Your task to perform on an android device: Go to Maps Image 0: 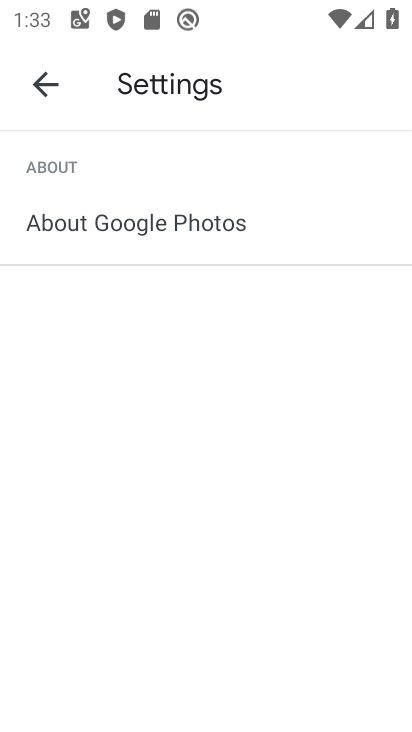
Step 0: press home button
Your task to perform on an android device: Go to Maps Image 1: 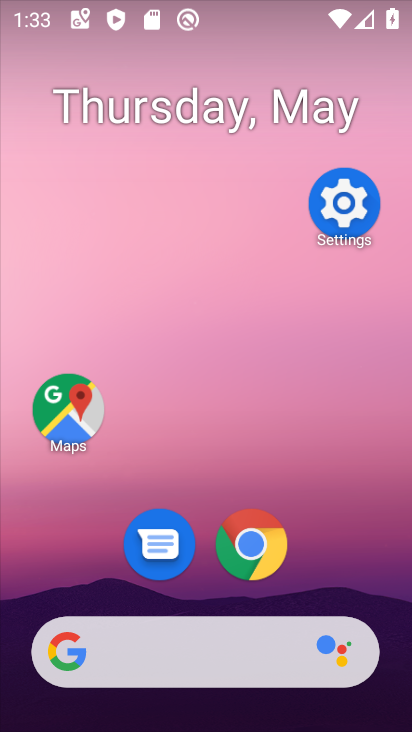
Step 1: click (82, 409)
Your task to perform on an android device: Go to Maps Image 2: 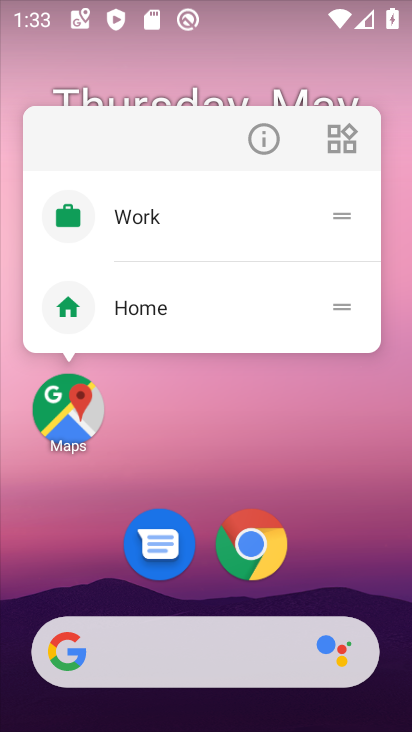
Step 2: click (60, 424)
Your task to perform on an android device: Go to Maps Image 3: 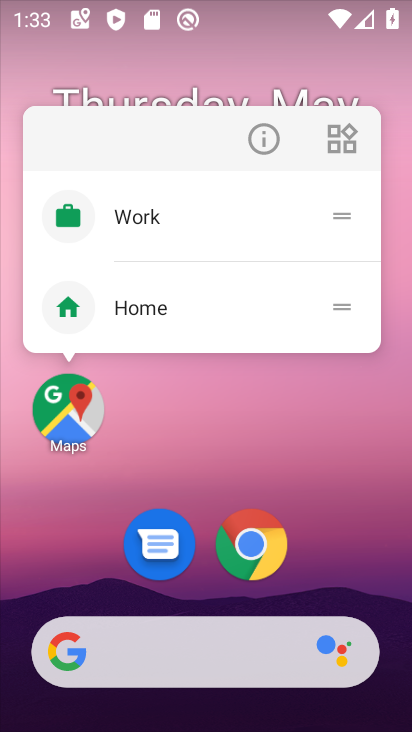
Step 3: click (77, 397)
Your task to perform on an android device: Go to Maps Image 4: 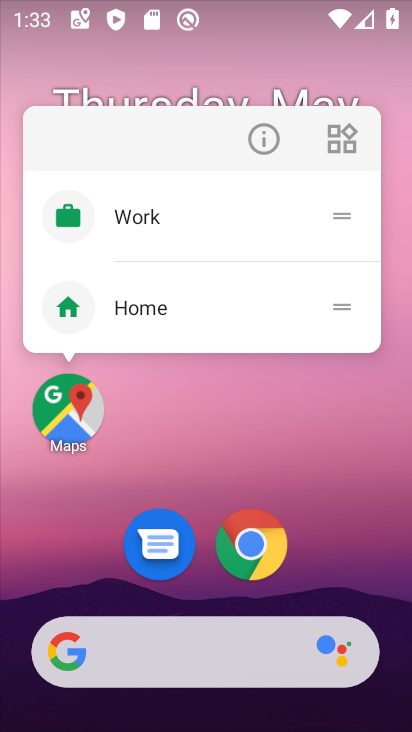
Step 4: click (65, 418)
Your task to perform on an android device: Go to Maps Image 5: 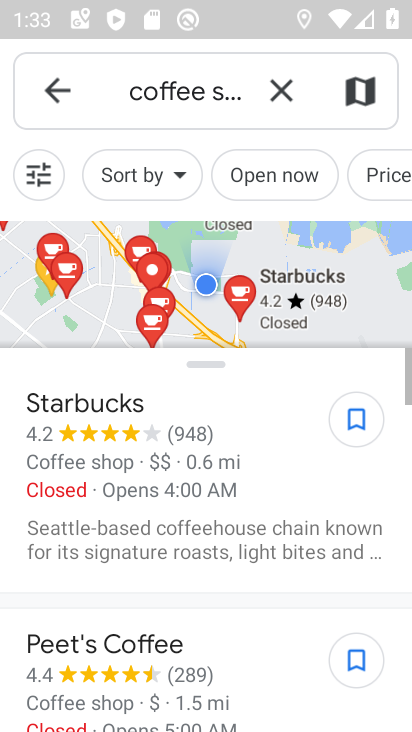
Step 5: click (278, 95)
Your task to perform on an android device: Go to Maps Image 6: 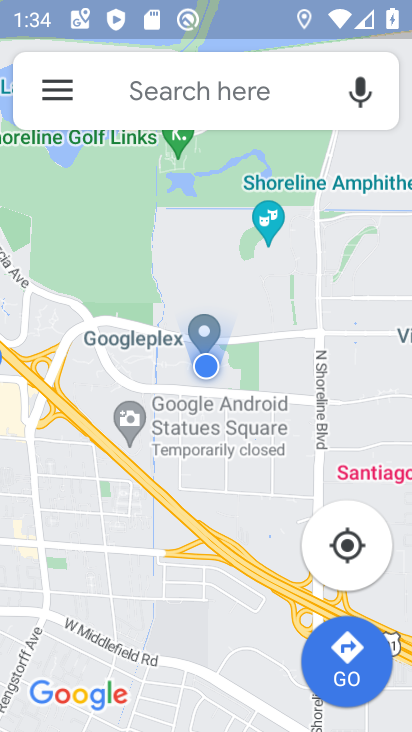
Step 6: task complete